Your task to perform on an android device: turn notification dots off Image 0: 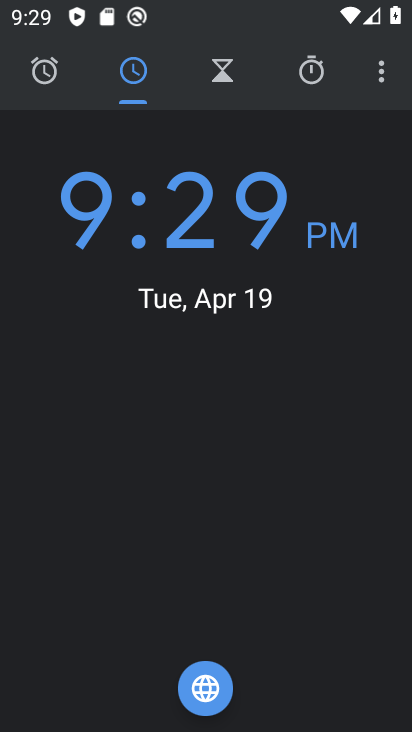
Step 0: press home button
Your task to perform on an android device: turn notification dots off Image 1: 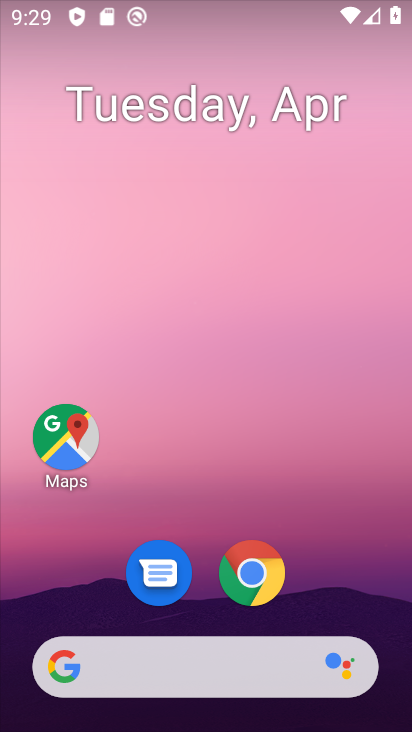
Step 1: drag from (370, 590) to (387, 4)
Your task to perform on an android device: turn notification dots off Image 2: 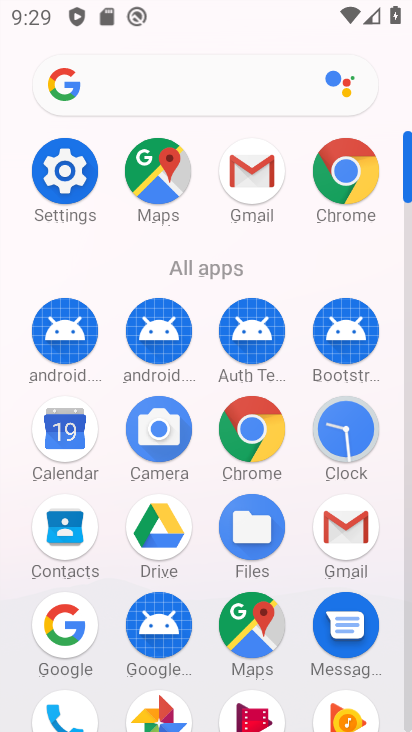
Step 2: click (64, 173)
Your task to perform on an android device: turn notification dots off Image 3: 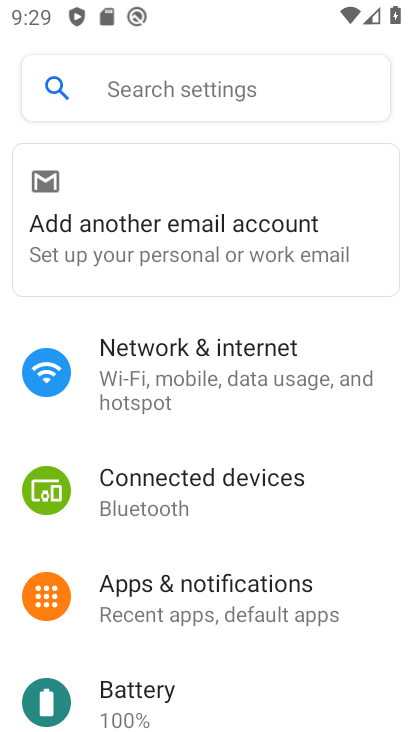
Step 3: click (201, 596)
Your task to perform on an android device: turn notification dots off Image 4: 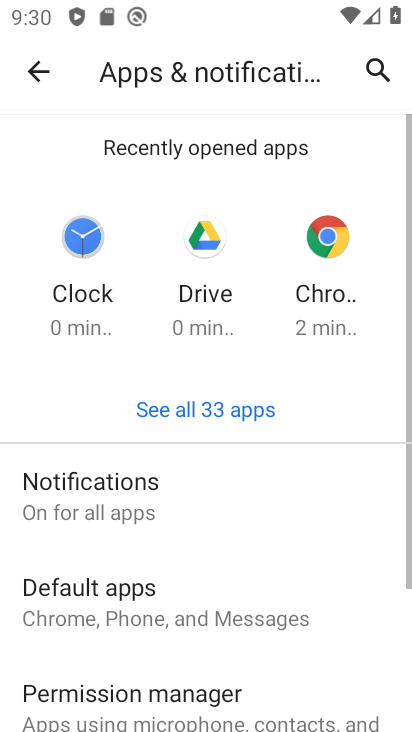
Step 4: drag from (330, 504) to (302, 126)
Your task to perform on an android device: turn notification dots off Image 5: 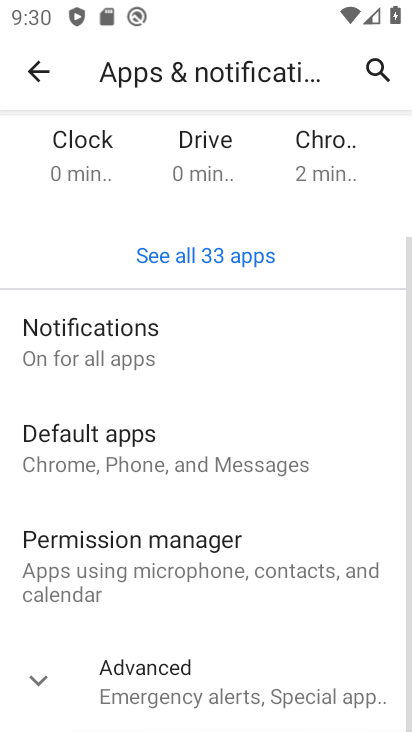
Step 5: drag from (283, 562) to (258, 171)
Your task to perform on an android device: turn notification dots off Image 6: 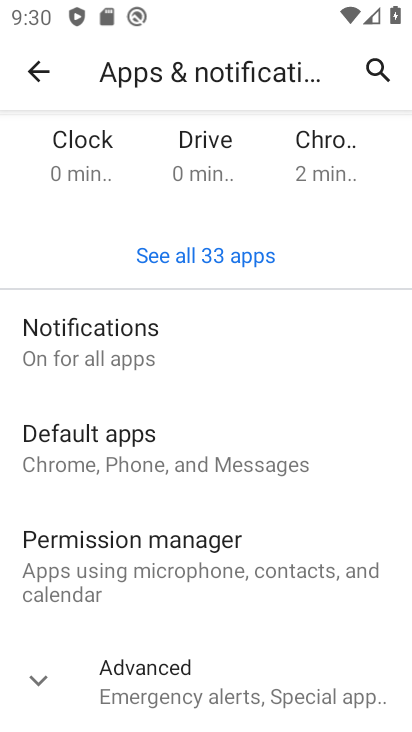
Step 6: click (35, 688)
Your task to perform on an android device: turn notification dots off Image 7: 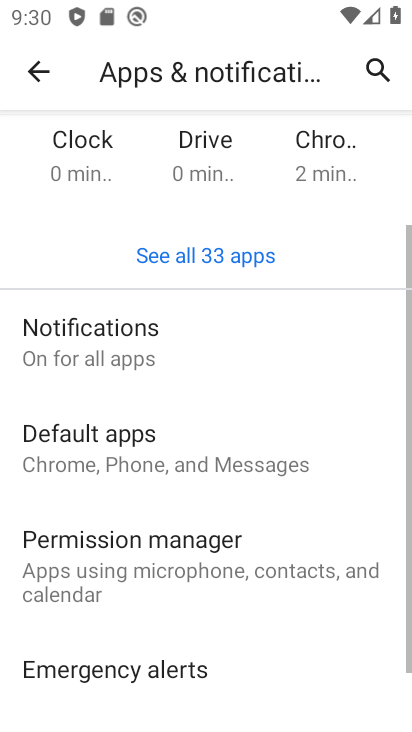
Step 7: drag from (226, 694) to (222, 190)
Your task to perform on an android device: turn notification dots off Image 8: 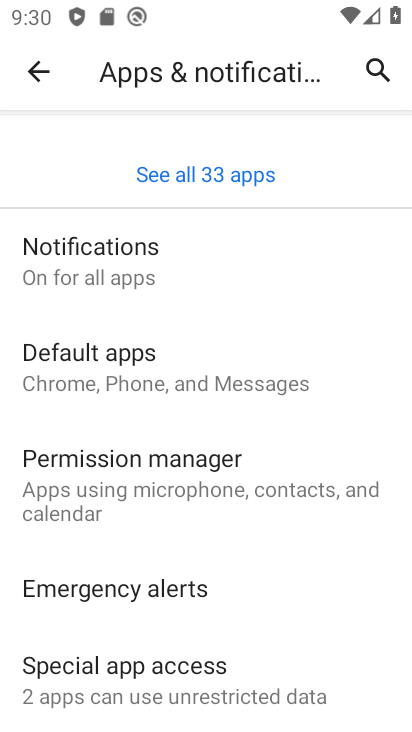
Step 8: click (71, 266)
Your task to perform on an android device: turn notification dots off Image 9: 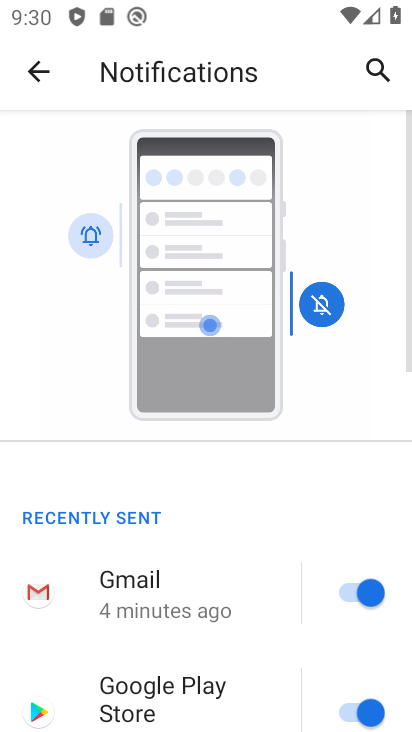
Step 9: drag from (234, 589) to (205, 99)
Your task to perform on an android device: turn notification dots off Image 10: 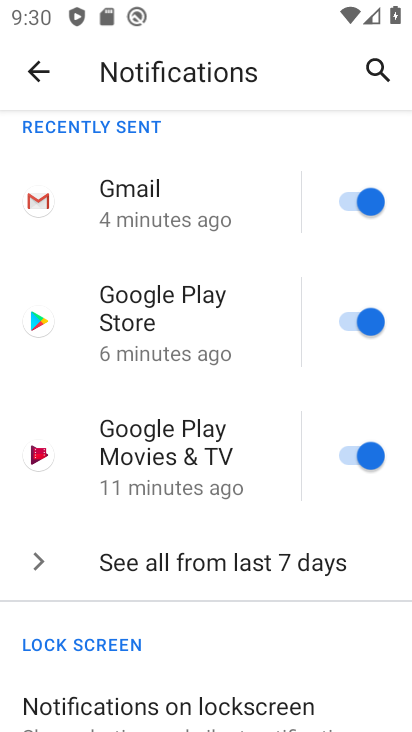
Step 10: drag from (255, 536) to (236, 178)
Your task to perform on an android device: turn notification dots off Image 11: 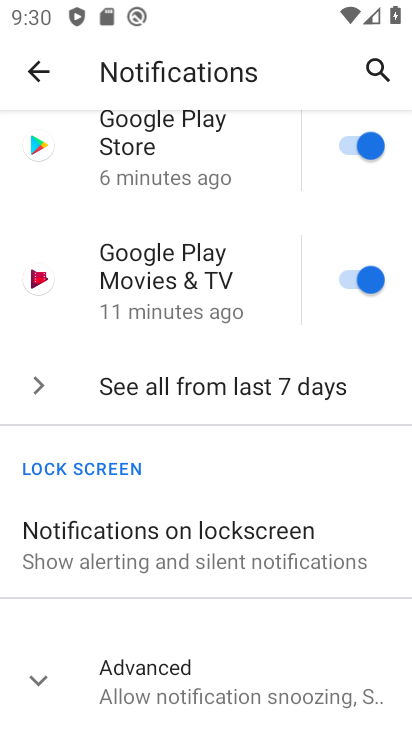
Step 11: click (39, 690)
Your task to perform on an android device: turn notification dots off Image 12: 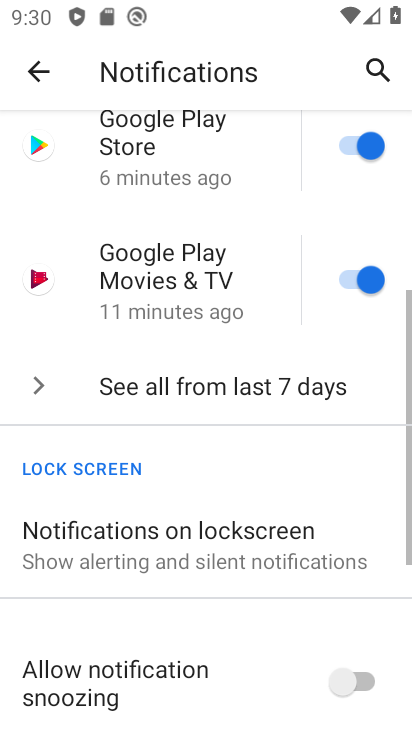
Step 12: drag from (173, 669) to (171, 158)
Your task to perform on an android device: turn notification dots off Image 13: 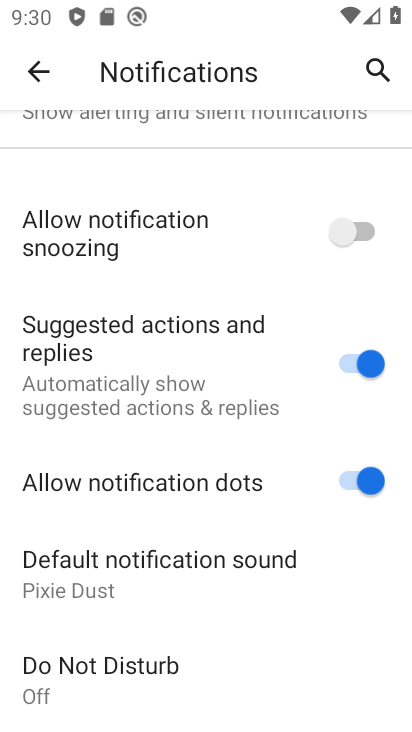
Step 13: click (364, 484)
Your task to perform on an android device: turn notification dots off Image 14: 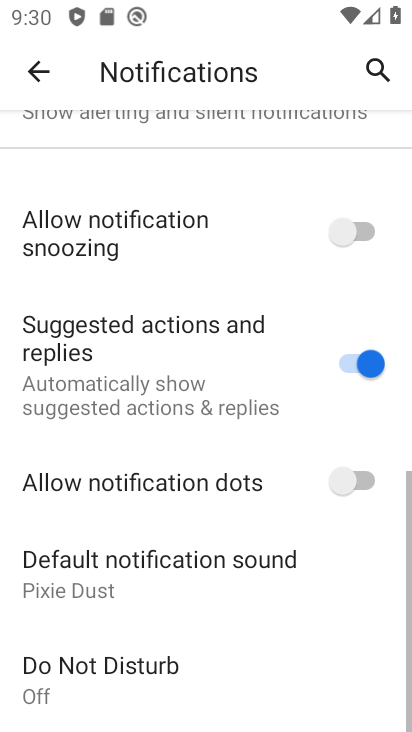
Step 14: task complete